Your task to perform on an android device: open app "Microsoft Outlook" Image 0: 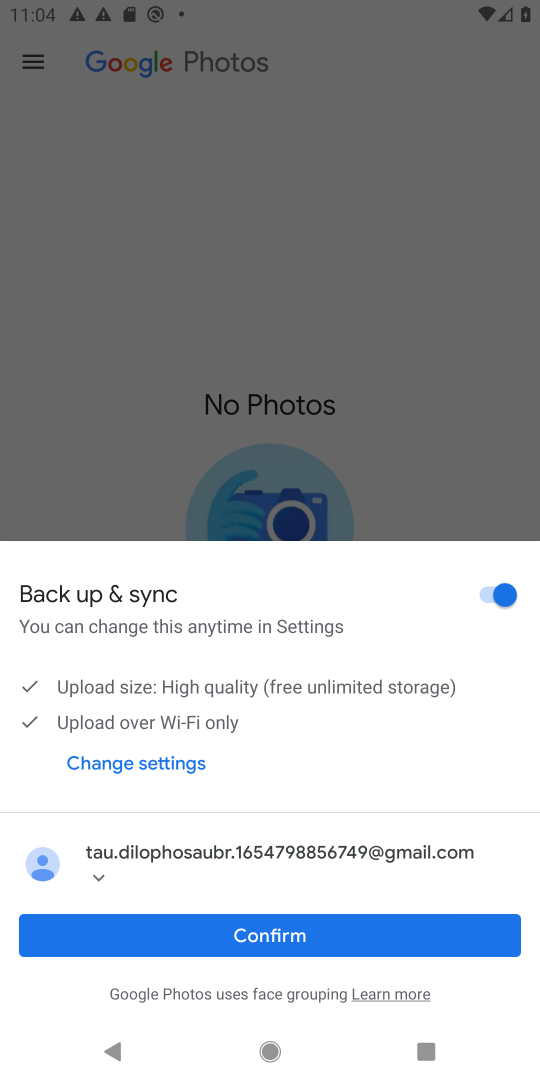
Step 0: press home button
Your task to perform on an android device: open app "Microsoft Outlook" Image 1: 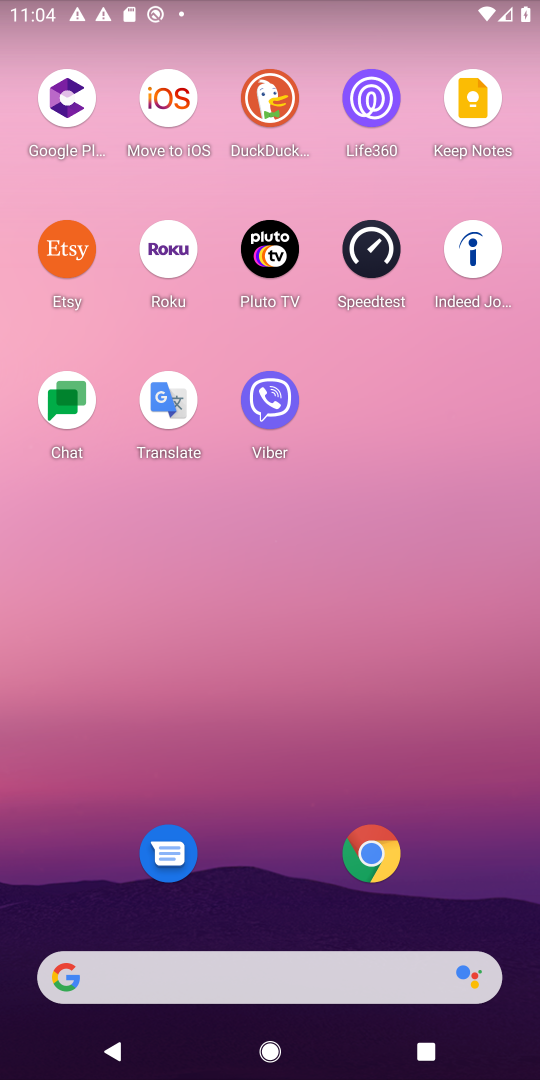
Step 1: drag from (299, 1069) to (267, 94)
Your task to perform on an android device: open app "Microsoft Outlook" Image 2: 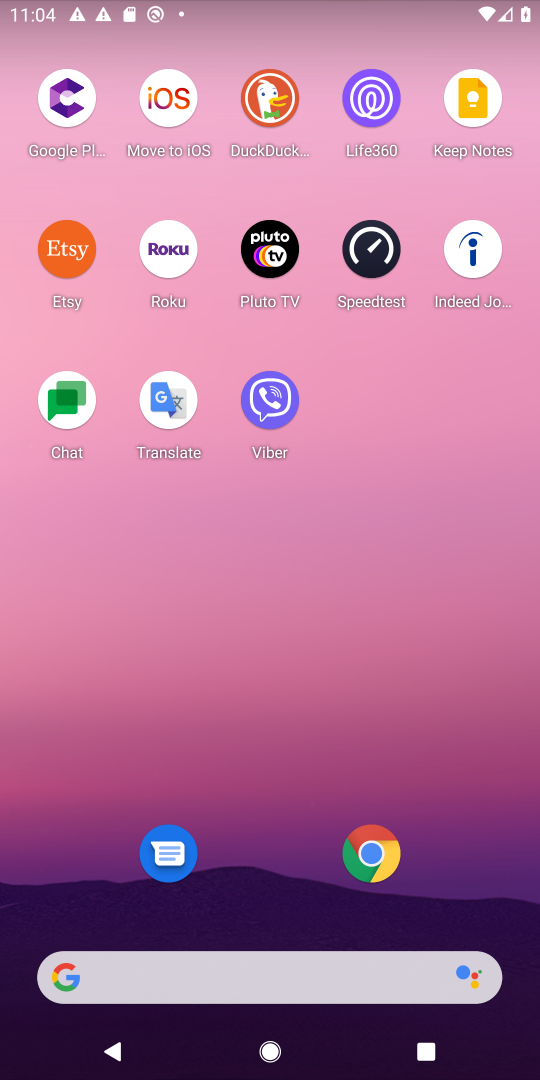
Step 2: drag from (301, 1071) to (298, 135)
Your task to perform on an android device: open app "Microsoft Outlook" Image 3: 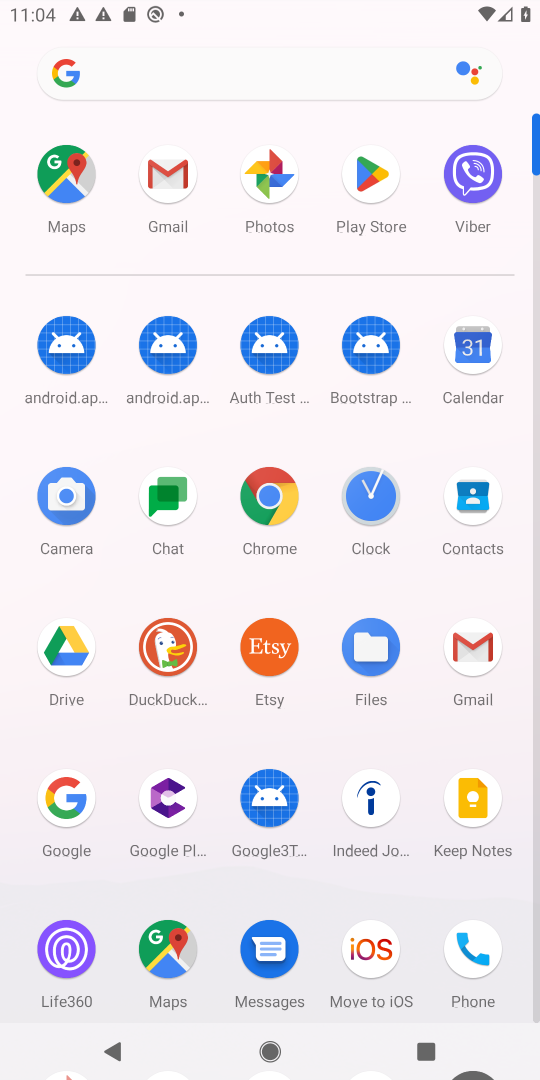
Step 3: click (373, 173)
Your task to perform on an android device: open app "Microsoft Outlook" Image 4: 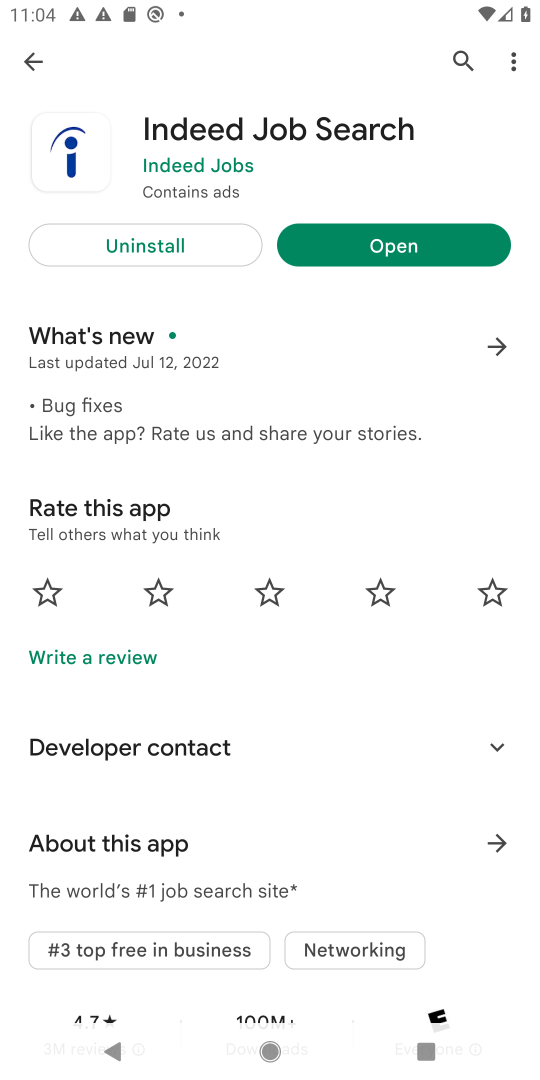
Step 4: click (461, 53)
Your task to perform on an android device: open app "Microsoft Outlook" Image 5: 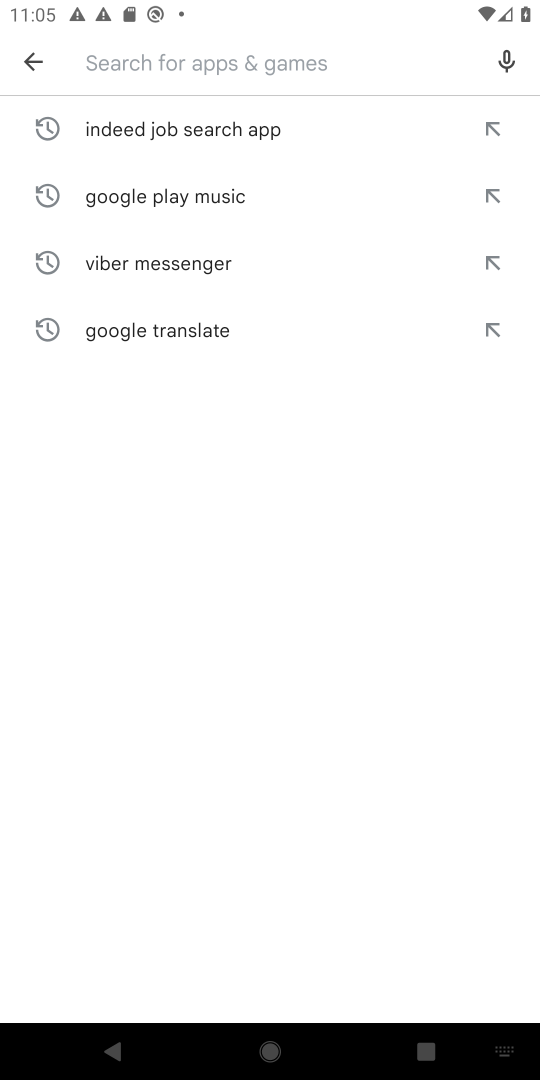
Step 5: type "Microsoft Outlook"
Your task to perform on an android device: open app "Microsoft Outlook" Image 6: 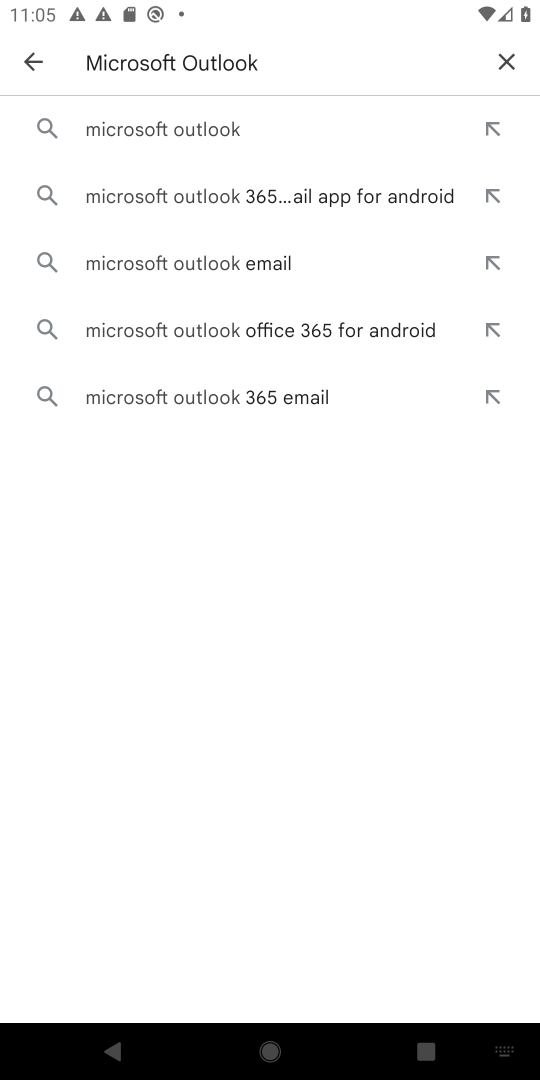
Step 6: click (161, 132)
Your task to perform on an android device: open app "Microsoft Outlook" Image 7: 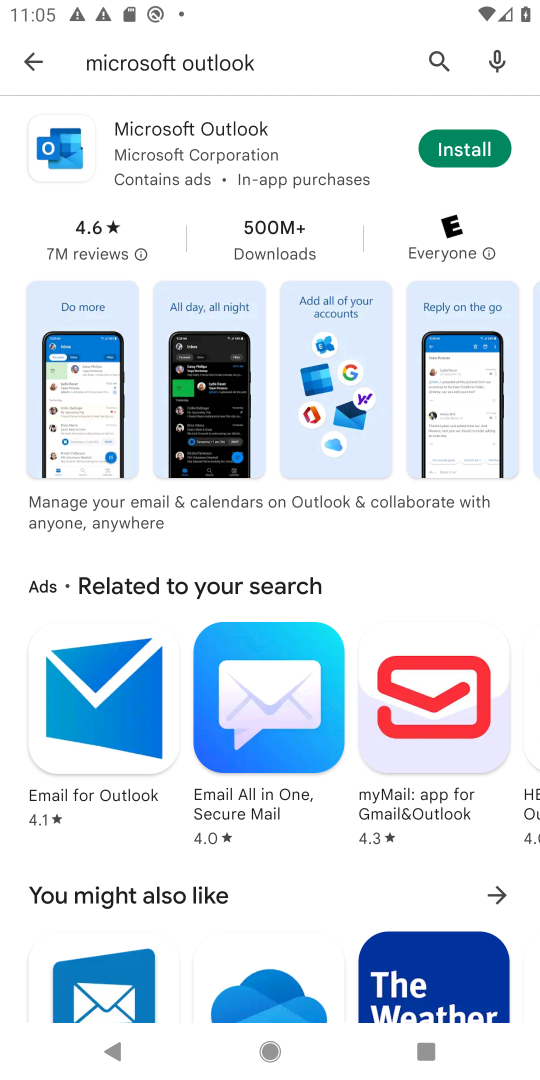
Step 7: task complete